Your task to perform on an android device: Go to notification settings Image 0: 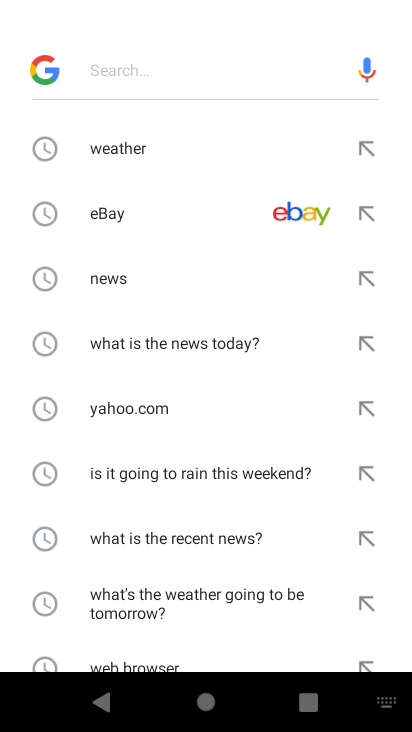
Step 0: press home button
Your task to perform on an android device: Go to notification settings Image 1: 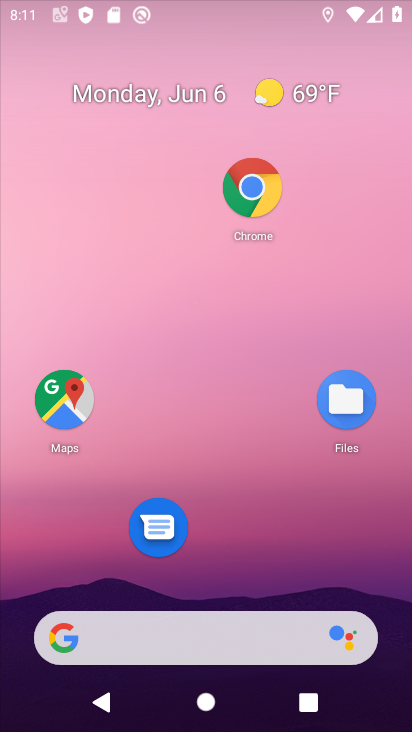
Step 1: drag from (264, 584) to (254, 45)
Your task to perform on an android device: Go to notification settings Image 2: 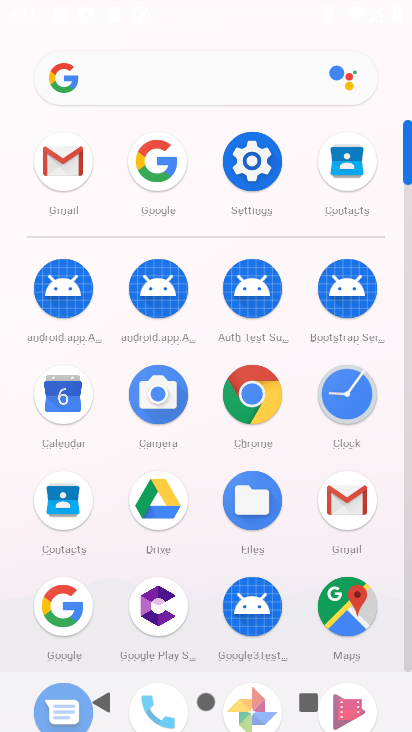
Step 2: click (259, 161)
Your task to perform on an android device: Go to notification settings Image 3: 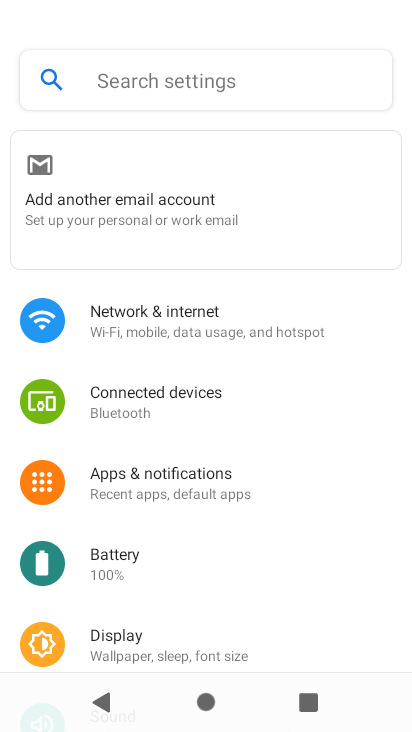
Step 3: drag from (234, 556) to (226, 355)
Your task to perform on an android device: Go to notification settings Image 4: 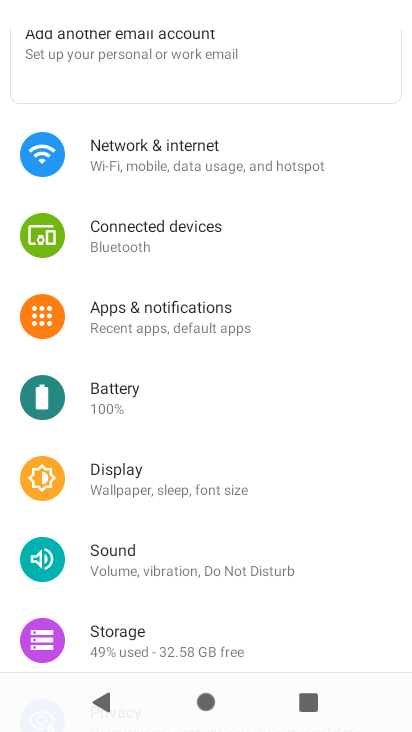
Step 4: click (169, 299)
Your task to perform on an android device: Go to notification settings Image 5: 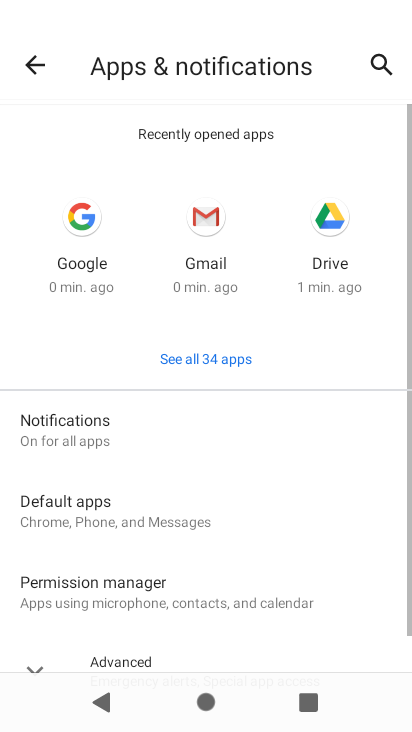
Step 5: click (175, 425)
Your task to perform on an android device: Go to notification settings Image 6: 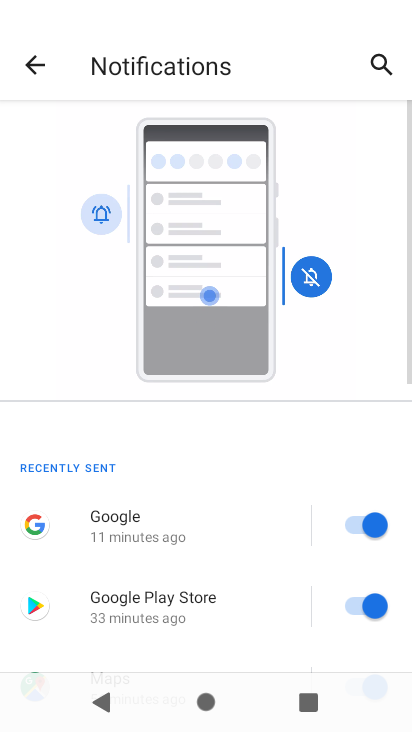
Step 6: task complete